Your task to perform on an android device: add a label to a message in the gmail app Image 0: 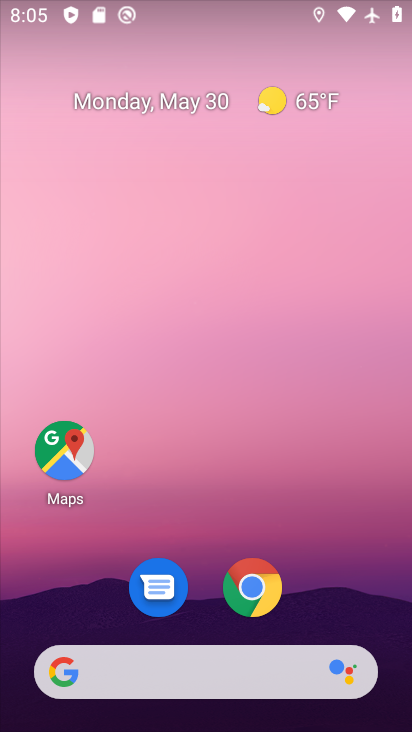
Step 0: press home button
Your task to perform on an android device: add a label to a message in the gmail app Image 1: 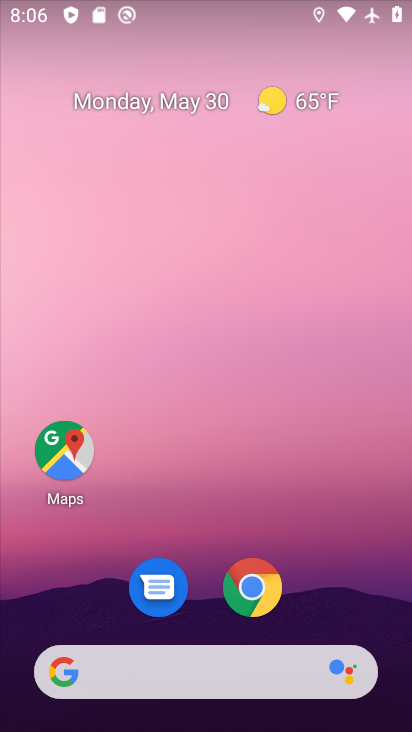
Step 1: drag from (154, 668) to (404, 236)
Your task to perform on an android device: add a label to a message in the gmail app Image 2: 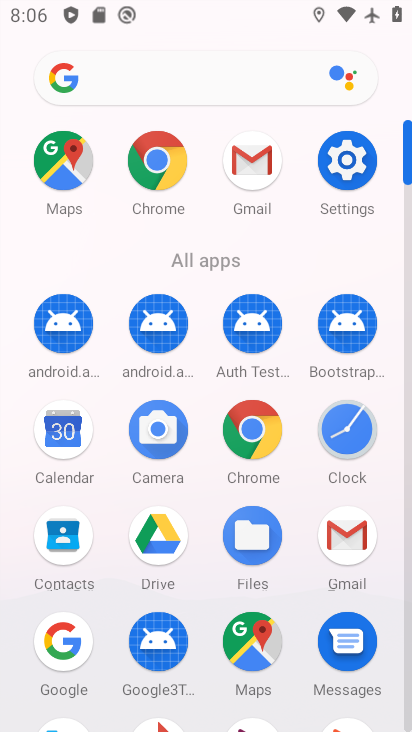
Step 2: click (254, 170)
Your task to perform on an android device: add a label to a message in the gmail app Image 3: 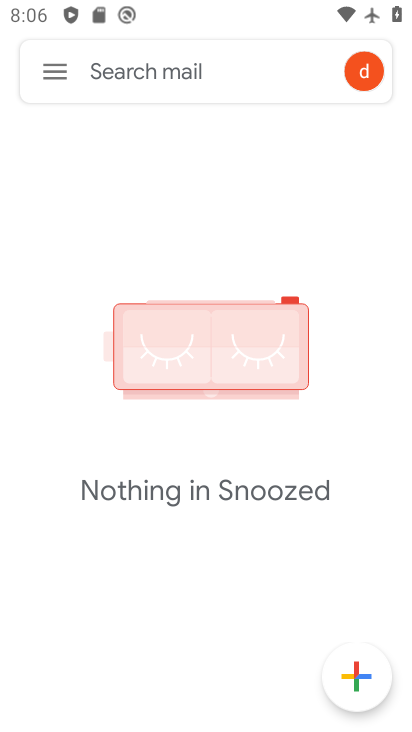
Step 3: click (64, 68)
Your task to perform on an android device: add a label to a message in the gmail app Image 4: 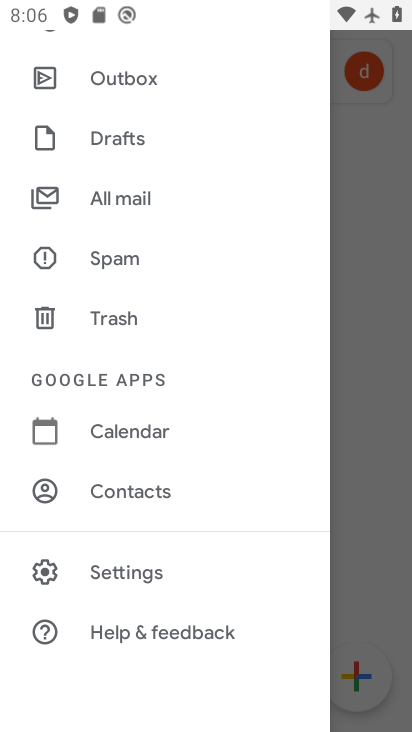
Step 4: drag from (230, 144) to (255, 348)
Your task to perform on an android device: add a label to a message in the gmail app Image 5: 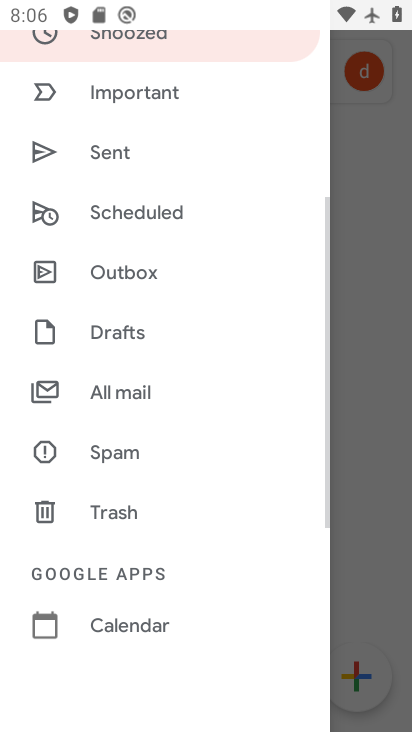
Step 5: click (138, 392)
Your task to perform on an android device: add a label to a message in the gmail app Image 6: 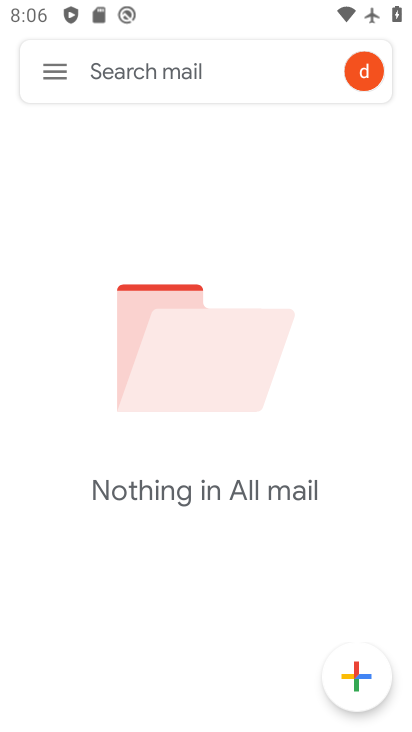
Step 6: task complete